Your task to perform on an android device: toggle translation in the chrome app Image 0: 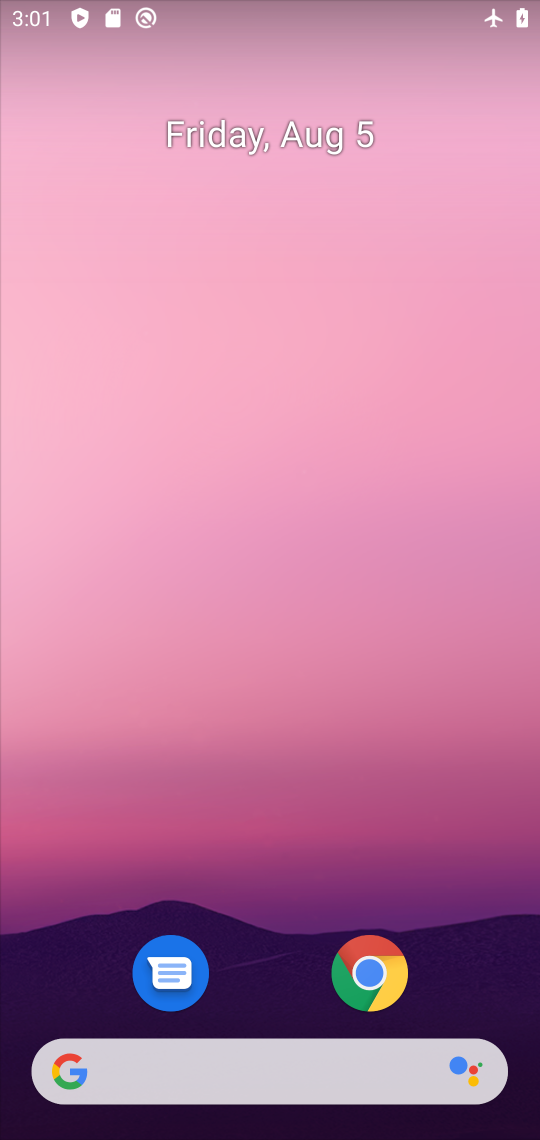
Step 0: click (381, 979)
Your task to perform on an android device: toggle translation in the chrome app Image 1: 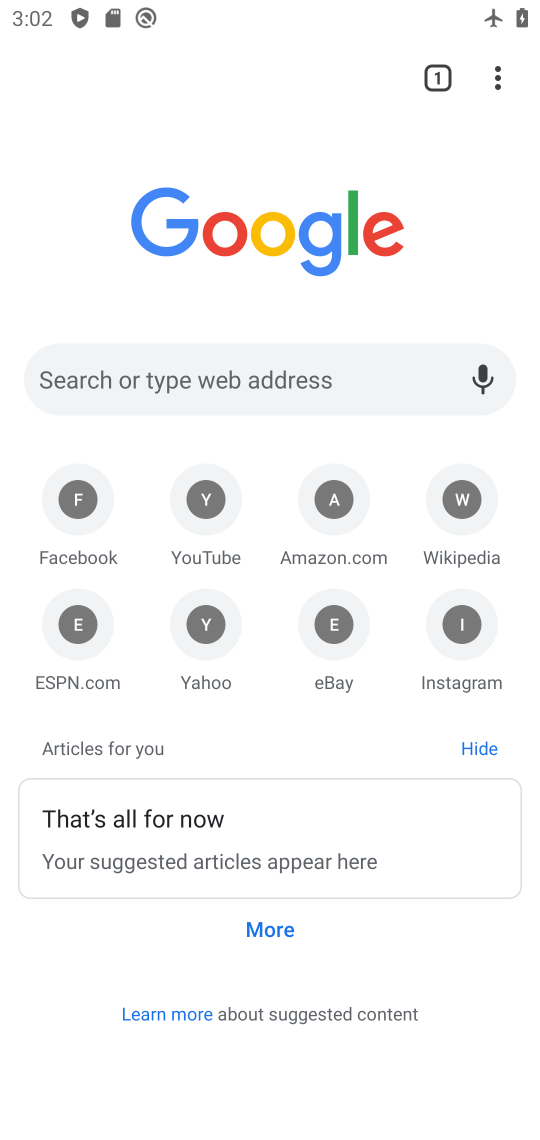
Step 1: click (482, 66)
Your task to perform on an android device: toggle translation in the chrome app Image 2: 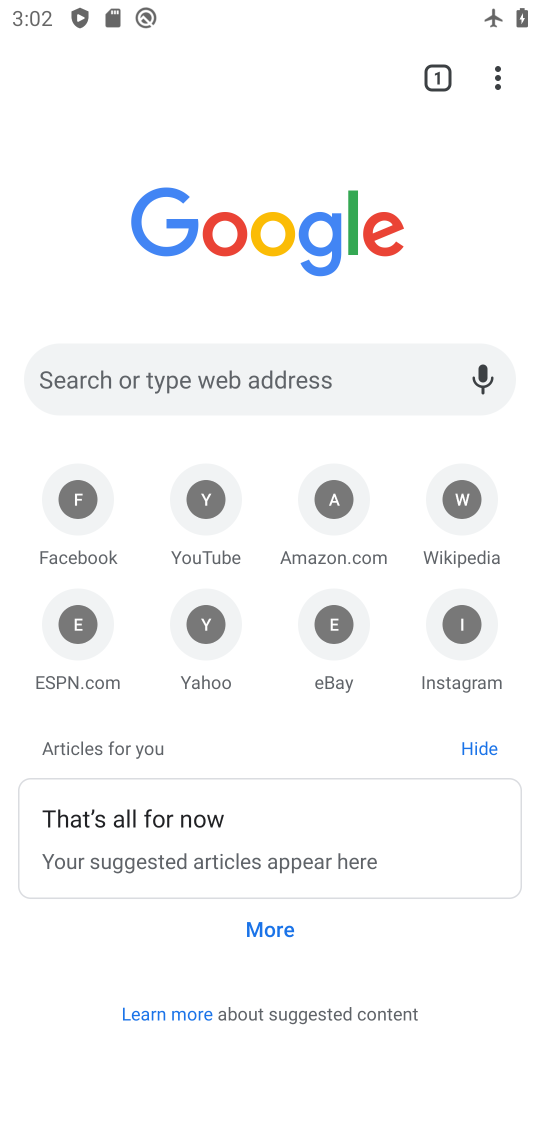
Step 2: drag from (498, 79) to (238, 651)
Your task to perform on an android device: toggle translation in the chrome app Image 3: 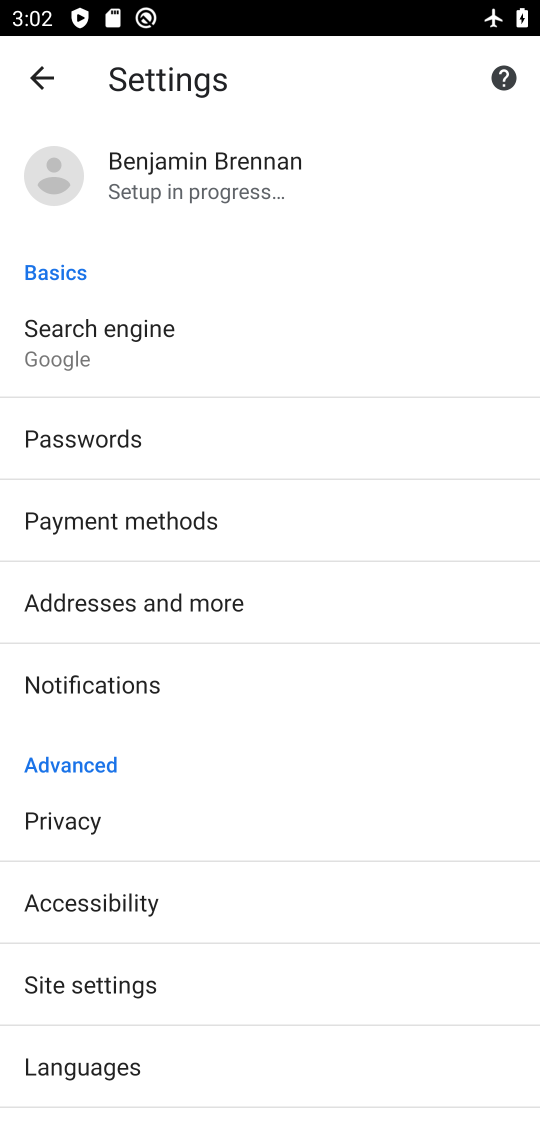
Step 3: drag from (190, 918) to (147, 264)
Your task to perform on an android device: toggle translation in the chrome app Image 4: 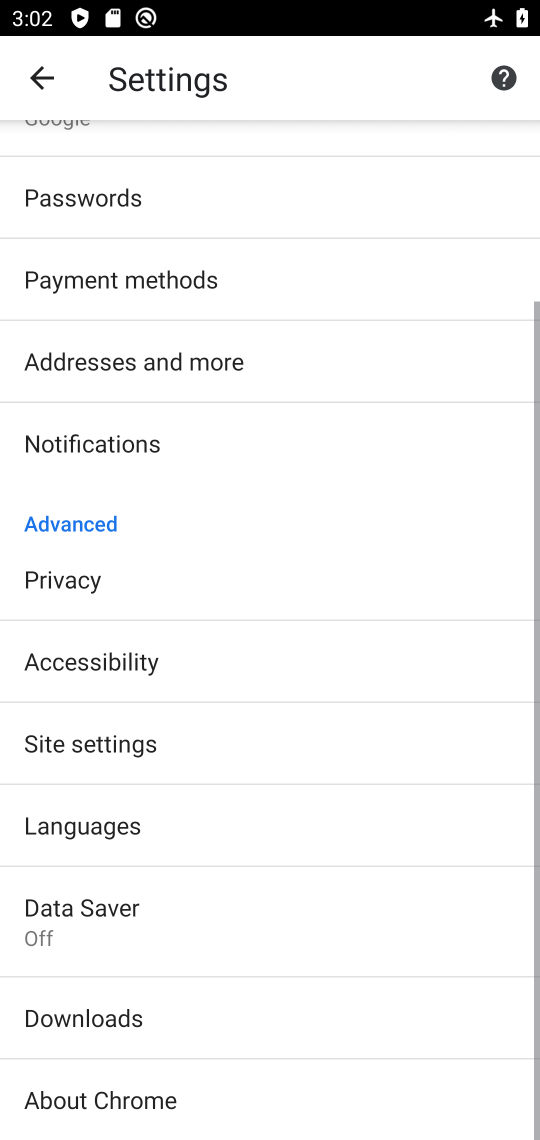
Step 4: click (104, 825)
Your task to perform on an android device: toggle translation in the chrome app Image 5: 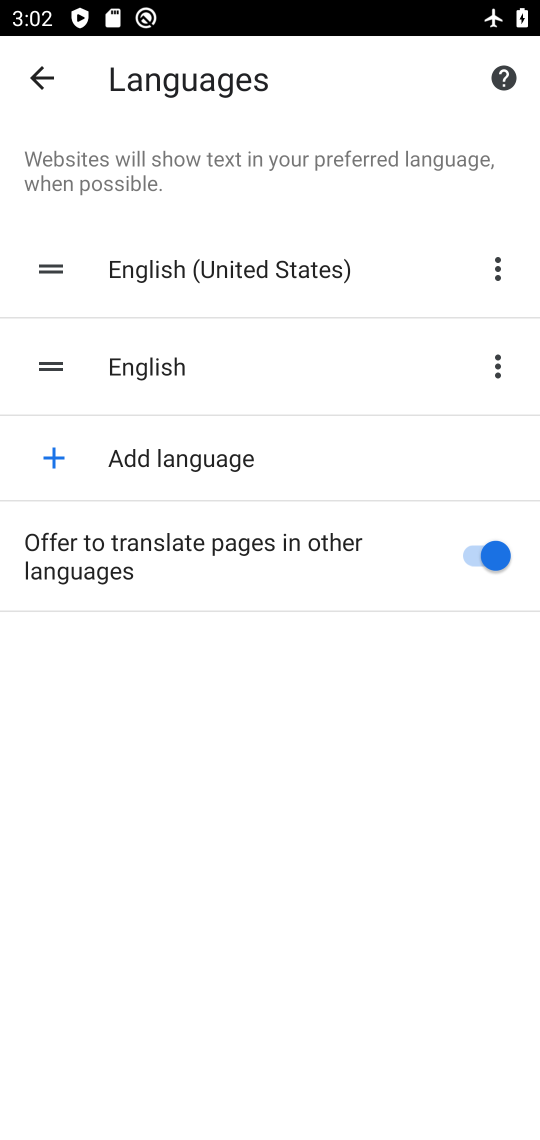
Step 5: click (455, 568)
Your task to perform on an android device: toggle translation in the chrome app Image 6: 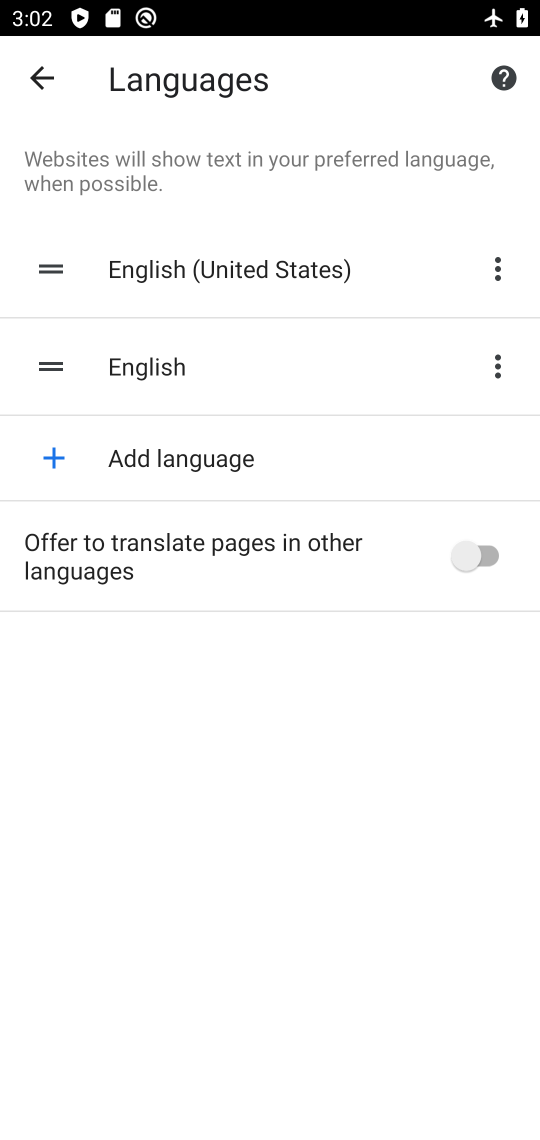
Step 6: task complete